Your task to perform on an android device: Show me popular games on the Play Store Image 0: 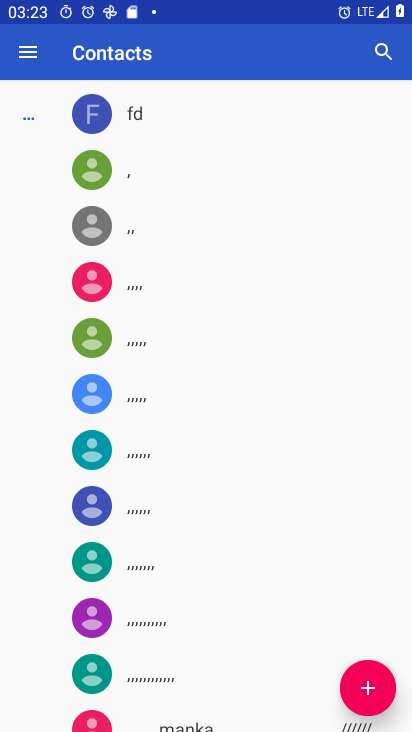
Step 0: press home button
Your task to perform on an android device: Show me popular games on the Play Store Image 1: 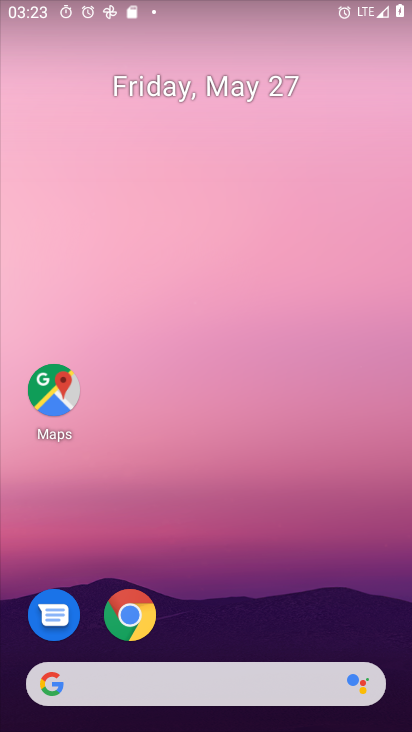
Step 1: drag from (369, 601) to (372, 221)
Your task to perform on an android device: Show me popular games on the Play Store Image 2: 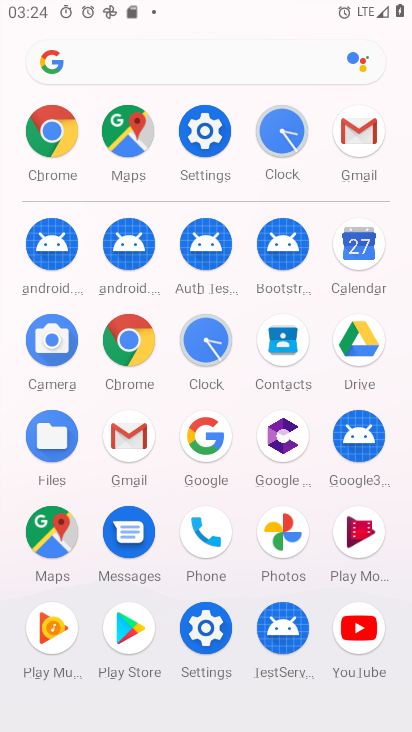
Step 2: click (132, 654)
Your task to perform on an android device: Show me popular games on the Play Store Image 3: 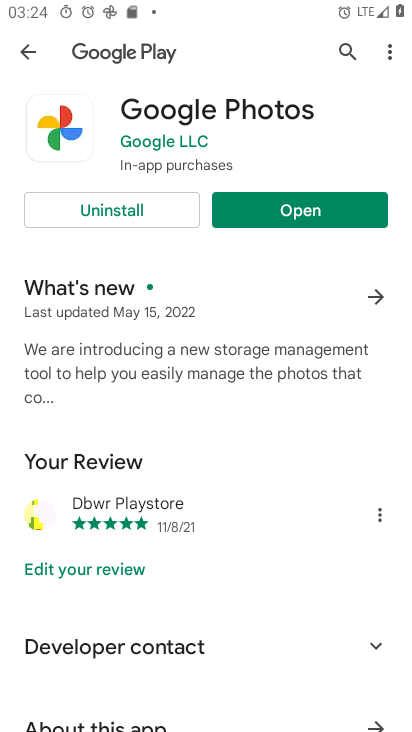
Step 3: click (26, 51)
Your task to perform on an android device: Show me popular games on the Play Store Image 4: 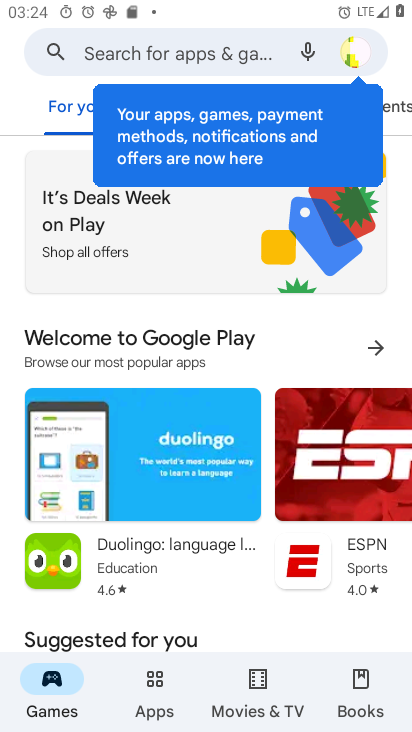
Step 4: task complete